Your task to perform on an android device: add a contact Image 0: 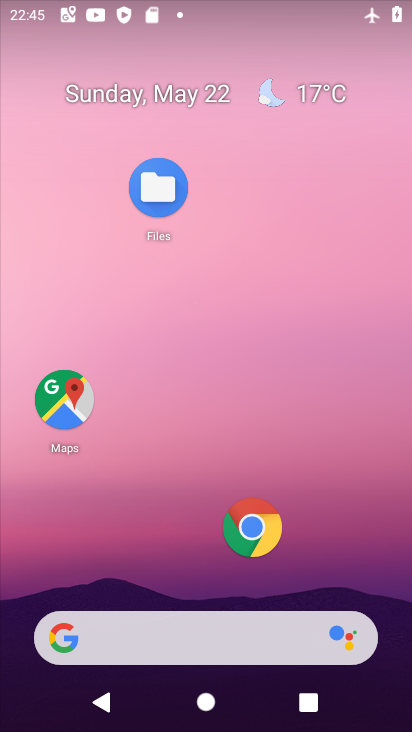
Step 0: drag from (176, 555) to (123, 33)
Your task to perform on an android device: add a contact Image 1: 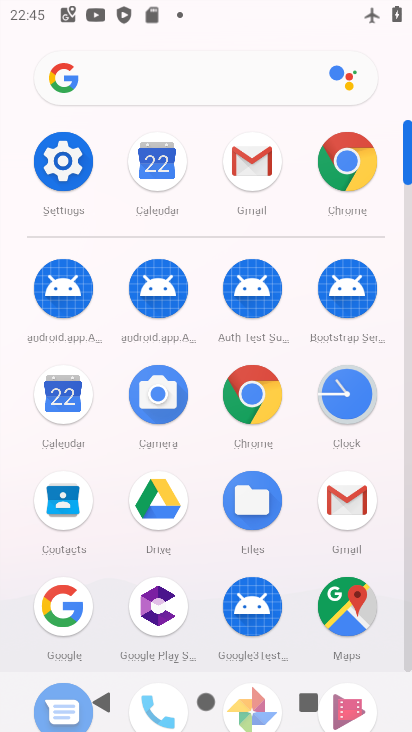
Step 1: click (60, 498)
Your task to perform on an android device: add a contact Image 2: 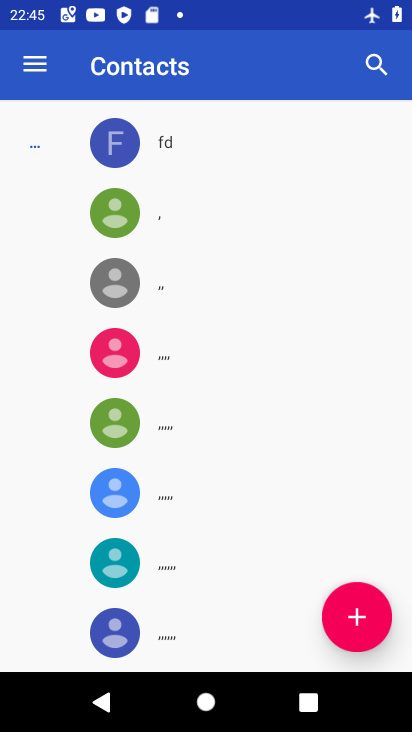
Step 2: click (363, 615)
Your task to perform on an android device: add a contact Image 3: 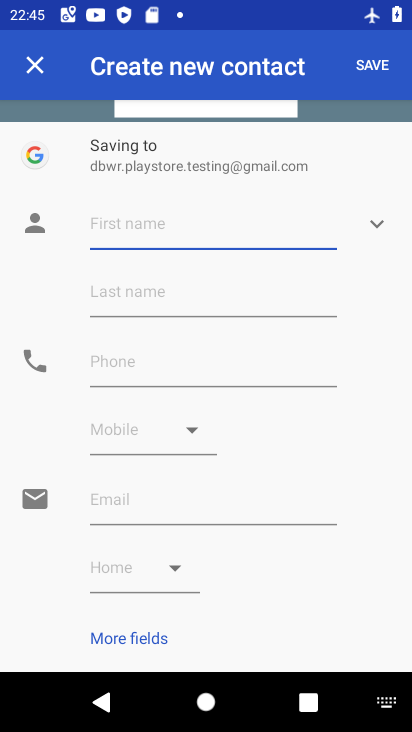
Step 3: type "..,,..,"
Your task to perform on an android device: add a contact Image 4: 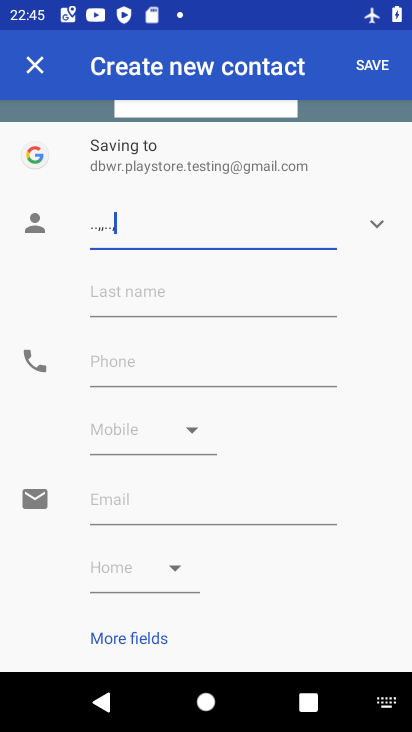
Step 4: click (134, 361)
Your task to perform on an android device: add a contact Image 5: 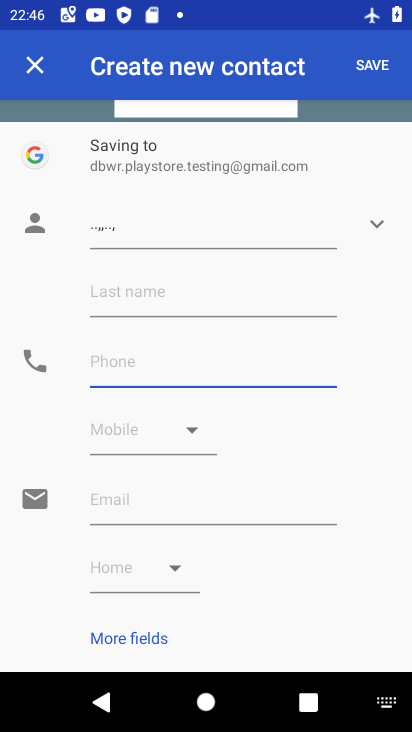
Step 5: type "098765"
Your task to perform on an android device: add a contact Image 6: 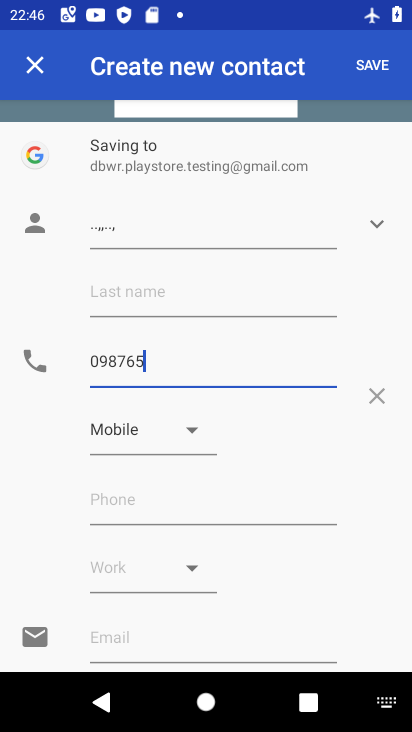
Step 6: click (385, 65)
Your task to perform on an android device: add a contact Image 7: 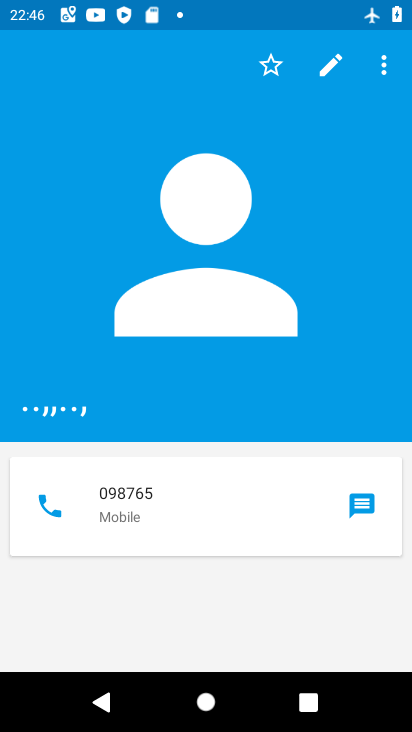
Step 7: task complete